Your task to perform on an android device: turn smart compose on in the gmail app Image 0: 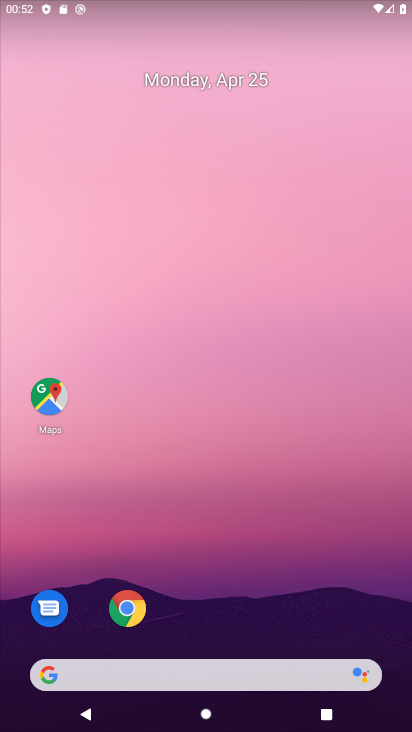
Step 0: drag from (233, 625) to (223, 170)
Your task to perform on an android device: turn smart compose on in the gmail app Image 1: 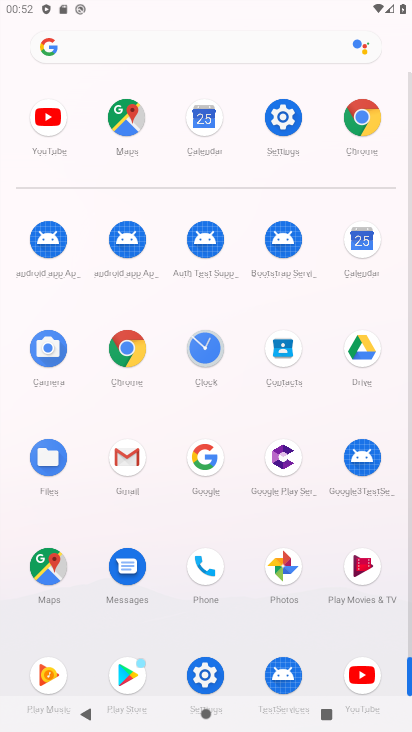
Step 1: click (138, 458)
Your task to perform on an android device: turn smart compose on in the gmail app Image 2: 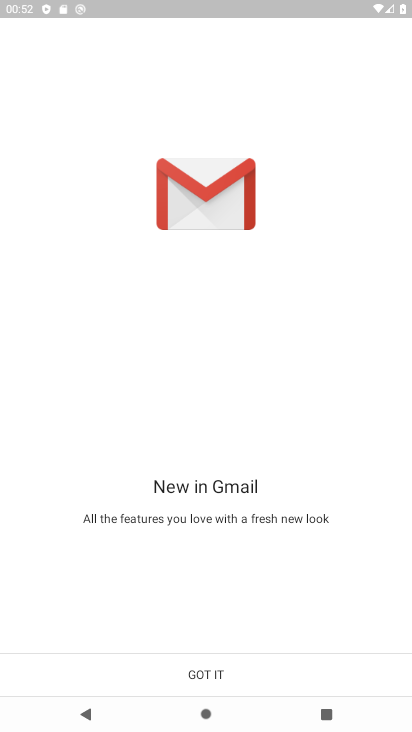
Step 2: click (207, 679)
Your task to perform on an android device: turn smart compose on in the gmail app Image 3: 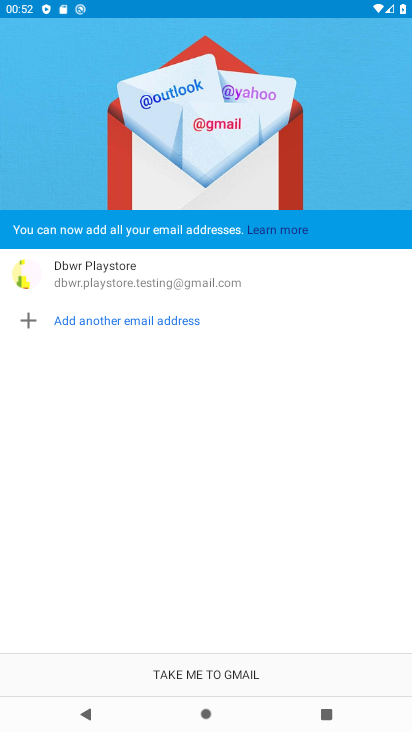
Step 3: click (207, 679)
Your task to perform on an android device: turn smart compose on in the gmail app Image 4: 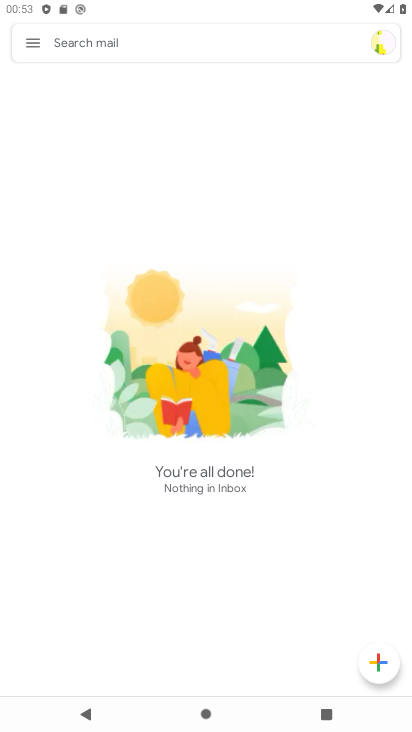
Step 4: click (34, 58)
Your task to perform on an android device: turn smart compose on in the gmail app Image 5: 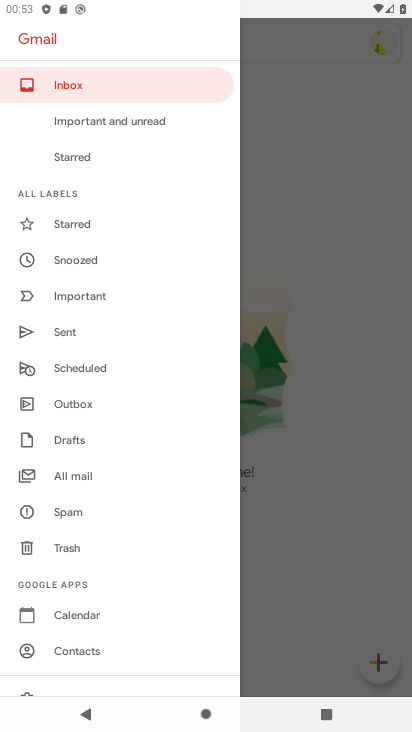
Step 5: drag from (136, 644) to (104, 277)
Your task to perform on an android device: turn smart compose on in the gmail app Image 6: 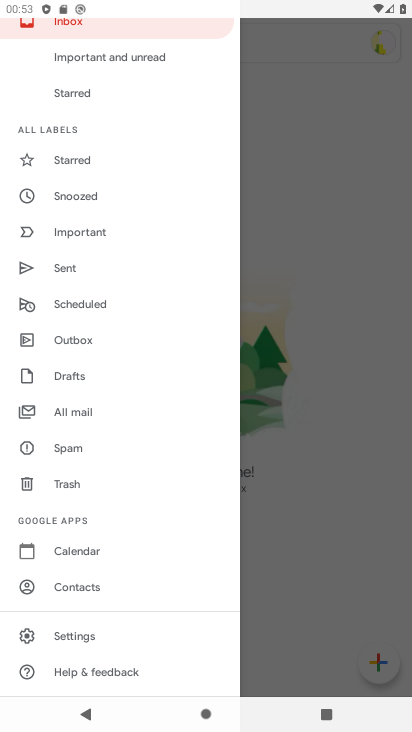
Step 6: click (145, 640)
Your task to perform on an android device: turn smart compose on in the gmail app Image 7: 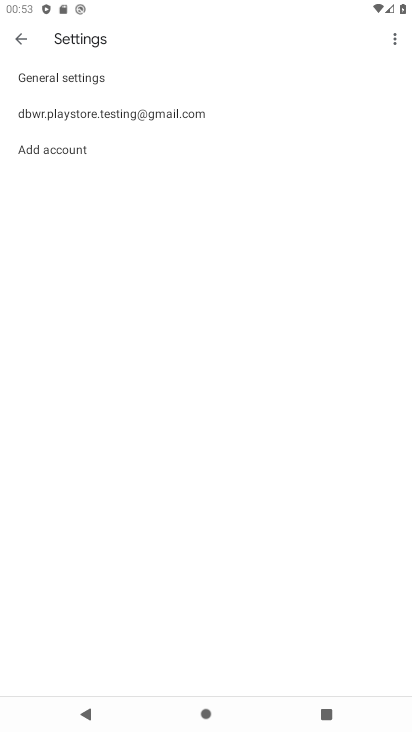
Step 7: click (247, 128)
Your task to perform on an android device: turn smart compose on in the gmail app Image 8: 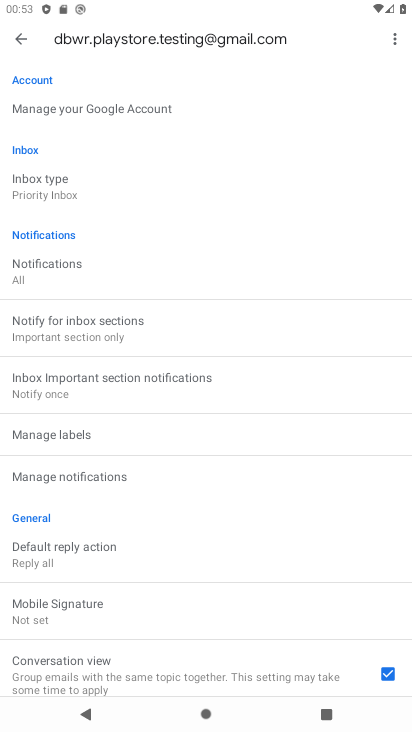
Step 8: task complete